Your task to perform on an android device: toggle priority inbox in the gmail app Image 0: 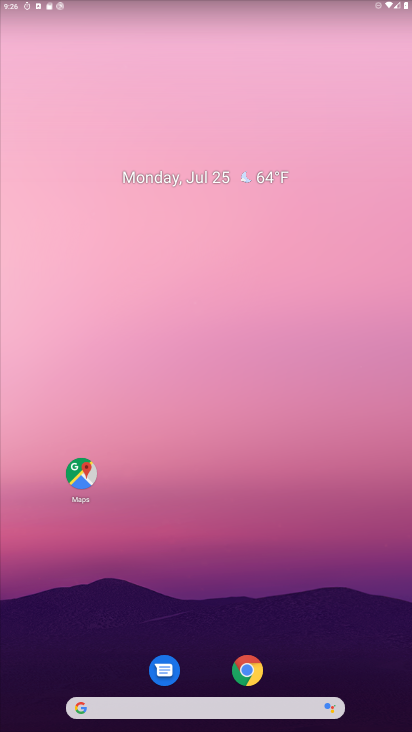
Step 0: drag from (381, 666) to (267, 0)
Your task to perform on an android device: toggle priority inbox in the gmail app Image 1: 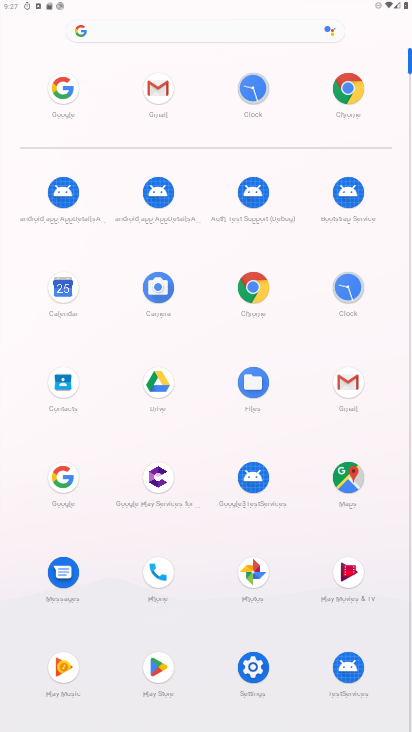
Step 1: click (348, 401)
Your task to perform on an android device: toggle priority inbox in the gmail app Image 2: 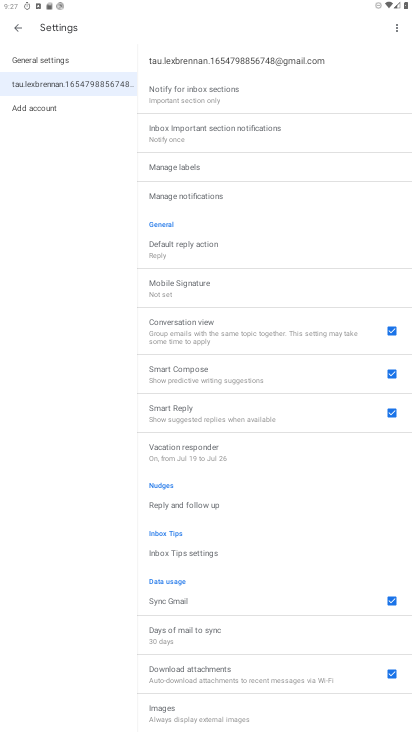
Step 2: drag from (215, 184) to (262, 695)
Your task to perform on an android device: toggle priority inbox in the gmail app Image 3: 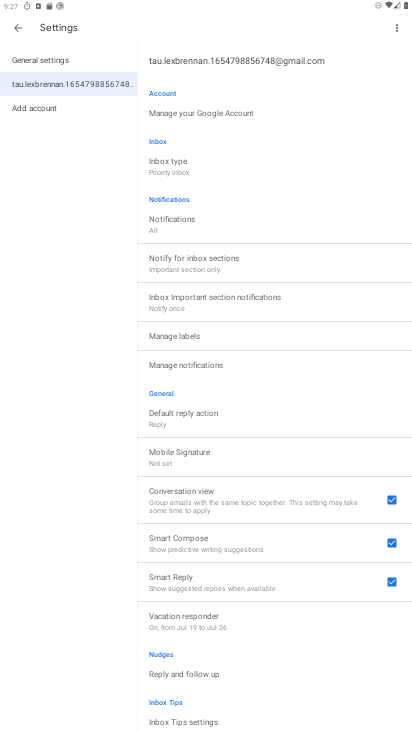
Step 3: click (180, 168)
Your task to perform on an android device: toggle priority inbox in the gmail app Image 4: 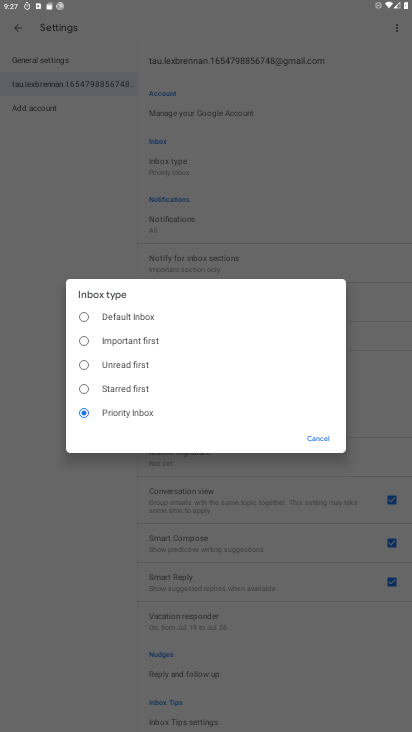
Step 4: click (87, 315)
Your task to perform on an android device: toggle priority inbox in the gmail app Image 5: 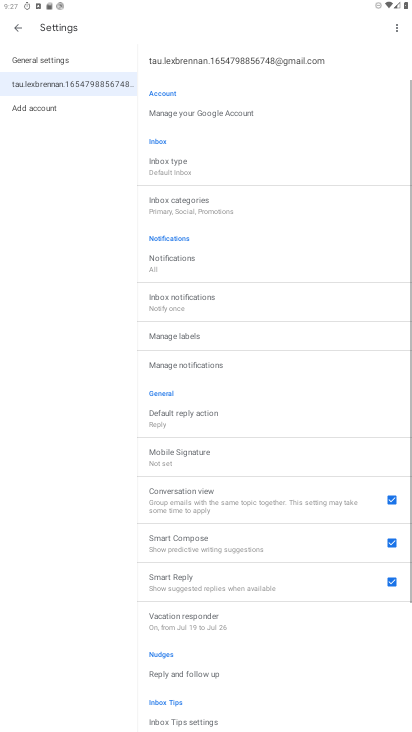
Step 5: task complete